Your task to perform on an android device: Open network settings Image 0: 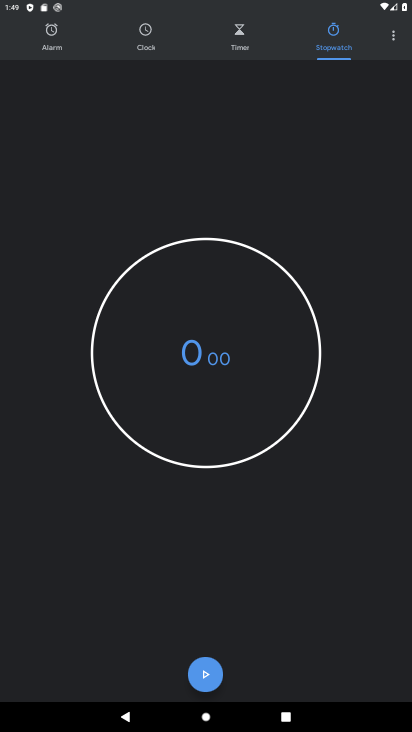
Step 0: press home button
Your task to perform on an android device: Open network settings Image 1: 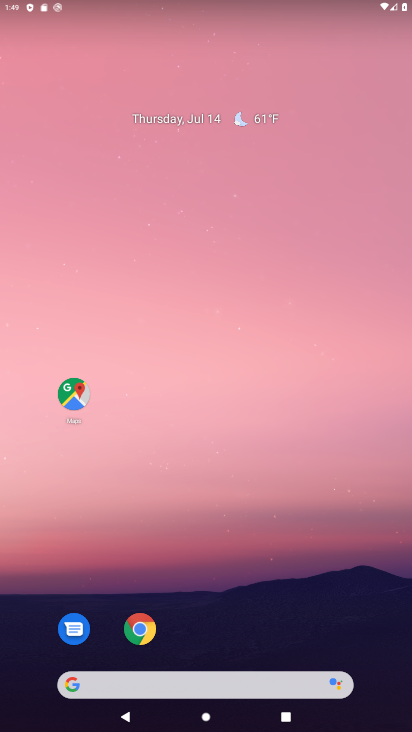
Step 1: drag from (257, 617) to (212, 99)
Your task to perform on an android device: Open network settings Image 2: 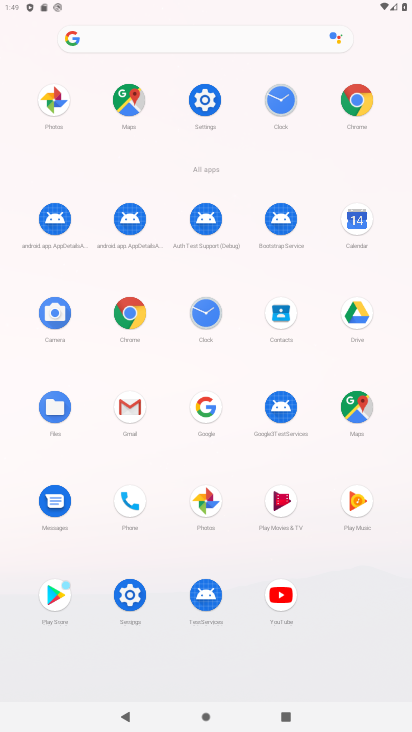
Step 2: click (203, 108)
Your task to perform on an android device: Open network settings Image 3: 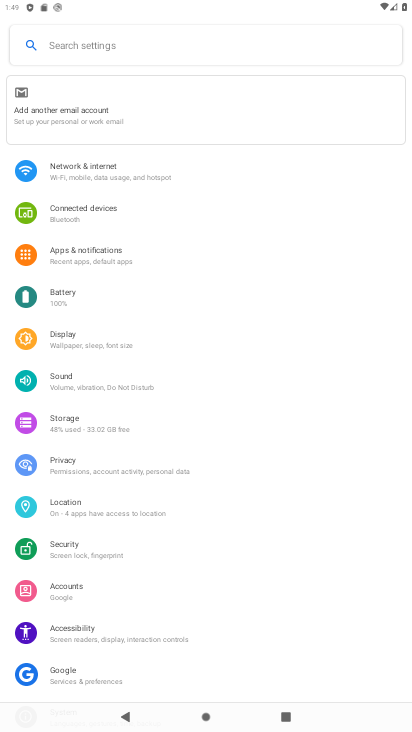
Step 3: click (107, 166)
Your task to perform on an android device: Open network settings Image 4: 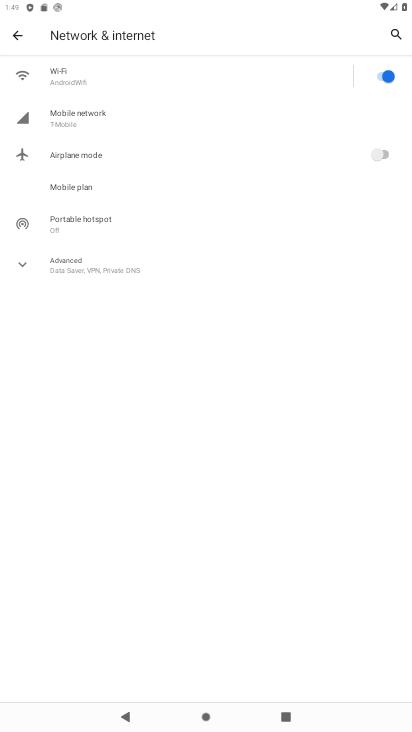
Step 4: task complete